Your task to perform on an android device: show emergency info Image 0: 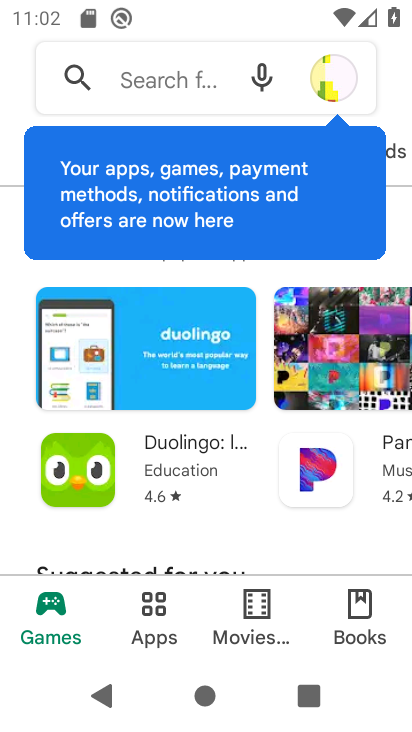
Step 0: press home button
Your task to perform on an android device: show emergency info Image 1: 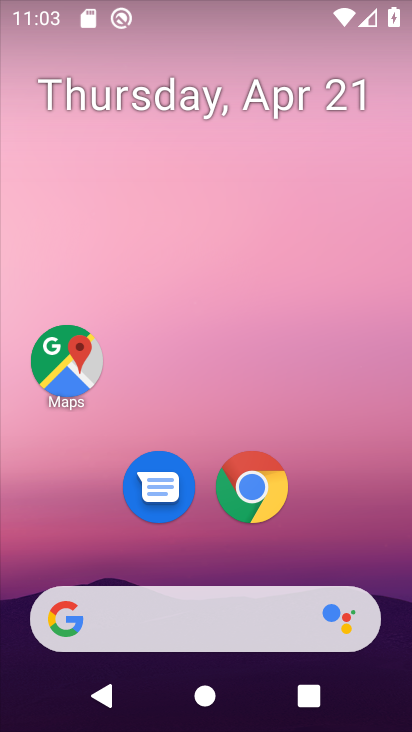
Step 1: drag from (212, 403) to (220, 6)
Your task to perform on an android device: show emergency info Image 2: 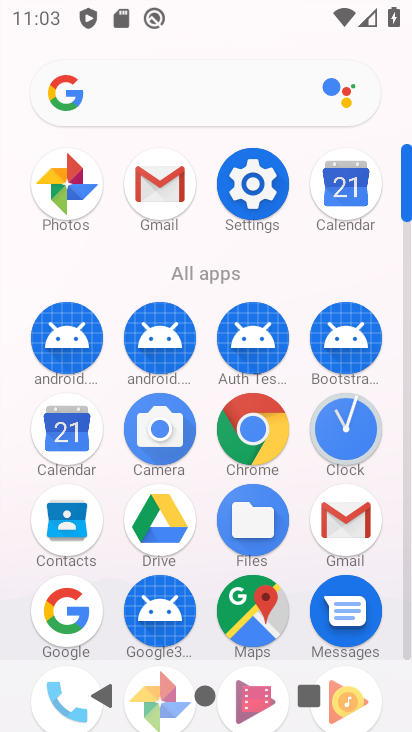
Step 2: click (253, 201)
Your task to perform on an android device: show emergency info Image 3: 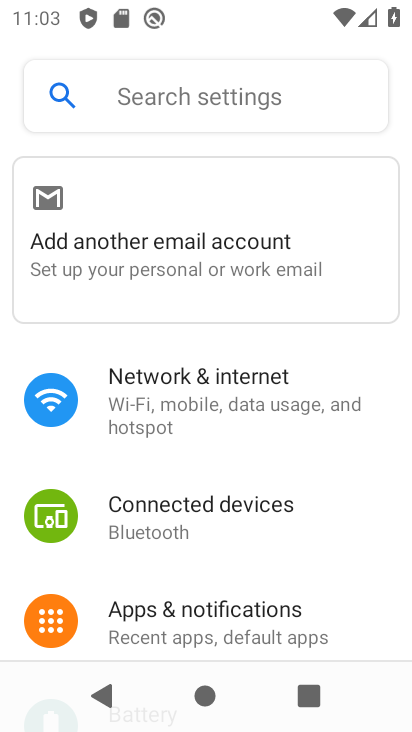
Step 3: drag from (208, 642) to (259, 17)
Your task to perform on an android device: show emergency info Image 4: 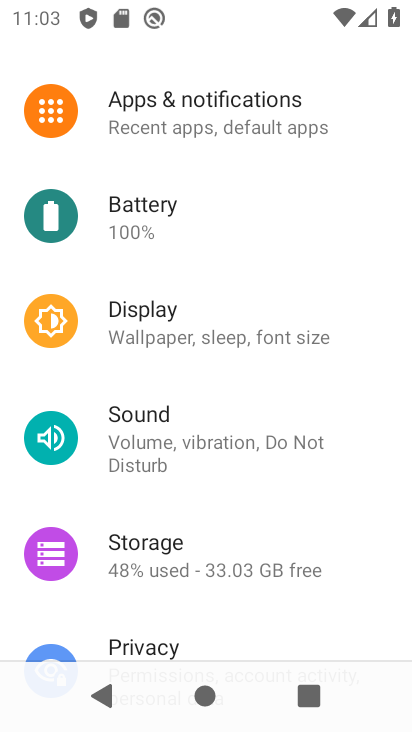
Step 4: drag from (214, 593) to (241, 0)
Your task to perform on an android device: show emergency info Image 5: 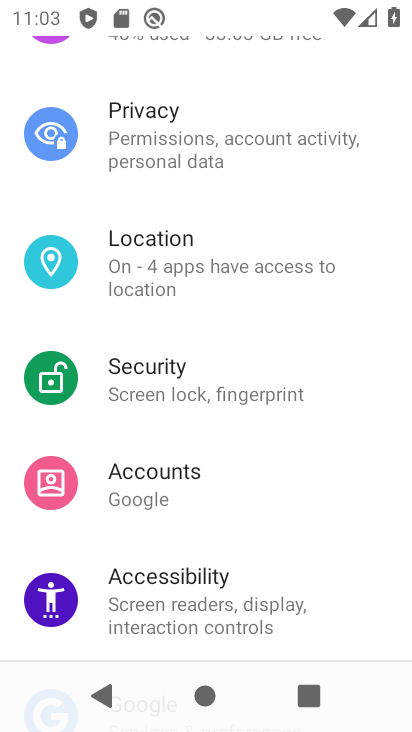
Step 5: drag from (221, 620) to (203, 120)
Your task to perform on an android device: show emergency info Image 6: 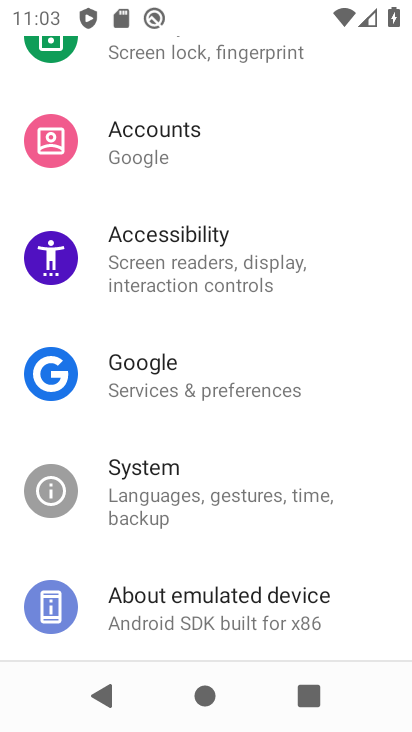
Step 6: click (233, 608)
Your task to perform on an android device: show emergency info Image 7: 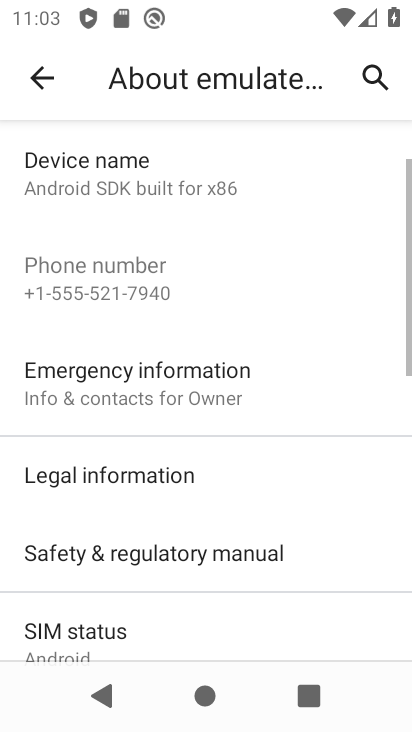
Step 7: click (211, 386)
Your task to perform on an android device: show emergency info Image 8: 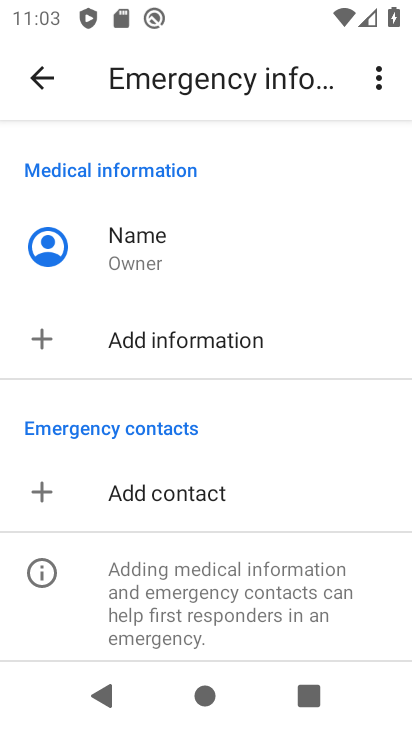
Step 8: task complete